Your task to perform on an android device: Go to Wikipedia Image 0: 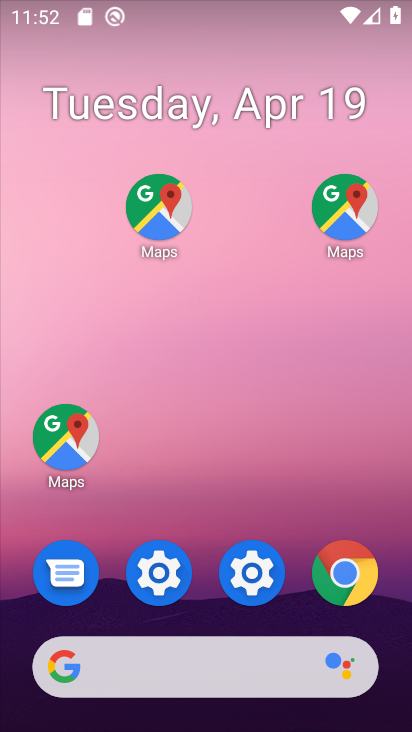
Step 0: drag from (342, 591) to (162, 133)
Your task to perform on an android device: Go to Wikipedia Image 1: 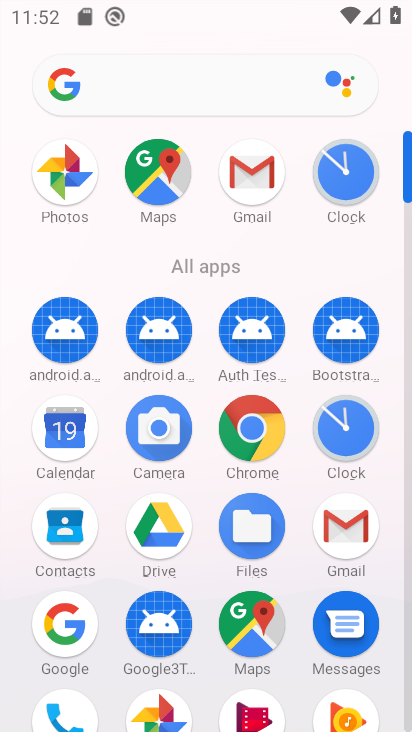
Step 1: click (252, 431)
Your task to perform on an android device: Go to Wikipedia Image 2: 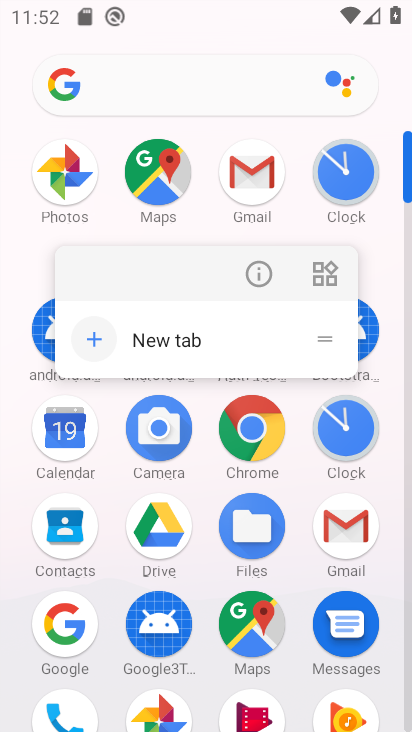
Step 2: click (256, 425)
Your task to perform on an android device: Go to Wikipedia Image 3: 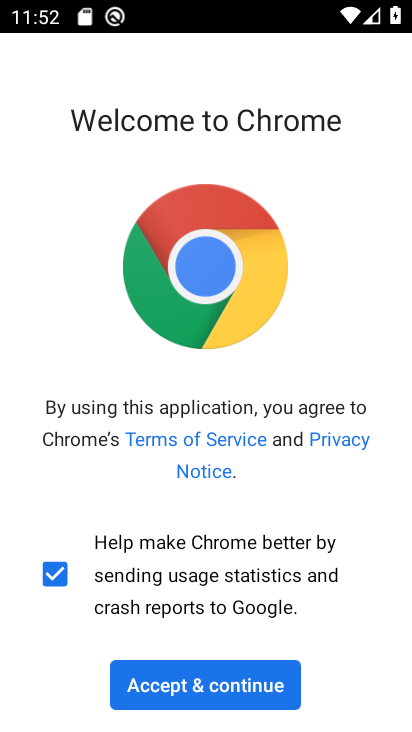
Step 3: click (197, 681)
Your task to perform on an android device: Go to Wikipedia Image 4: 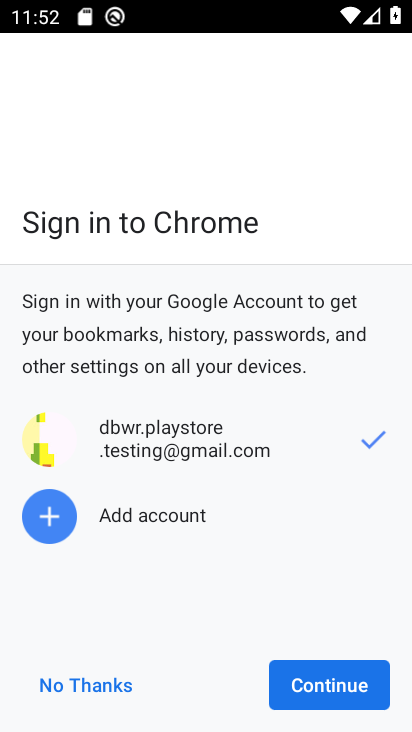
Step 4: click (342, 682)
Your task to perform on an android device: Go to Wikipedia Image 5: 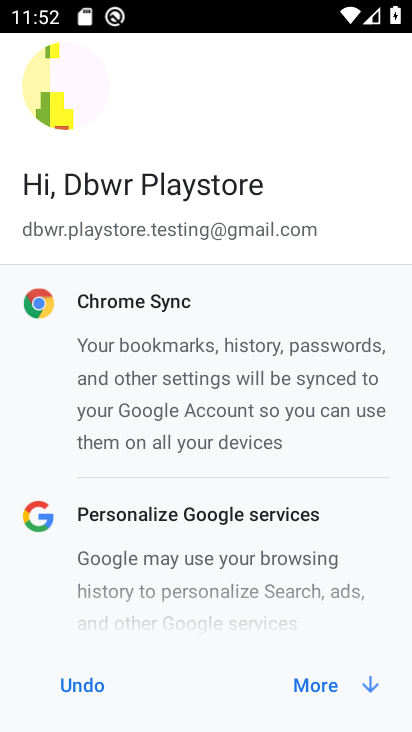
Step 5: click (342, 682)
Your task to perform on an android device: Go to Wikipedia Image 6: 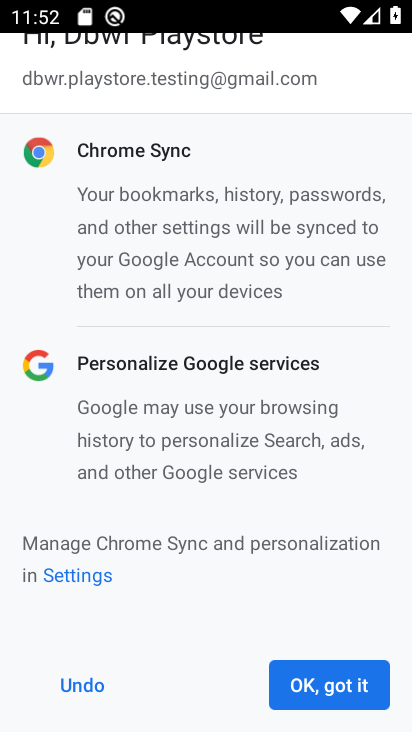
Step 6: click (342, 682)
Your task to perform on an android device: Go to Wikipedia Image 7: 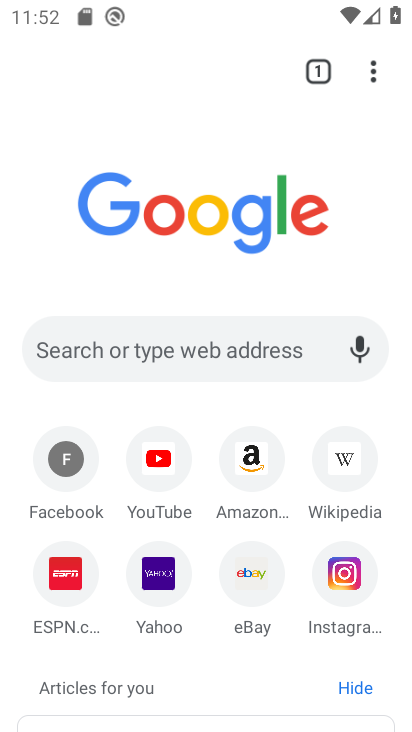
Step 7: click (340, 460)
Your task to perform on an android device: Go to Wikipedia Image 8: 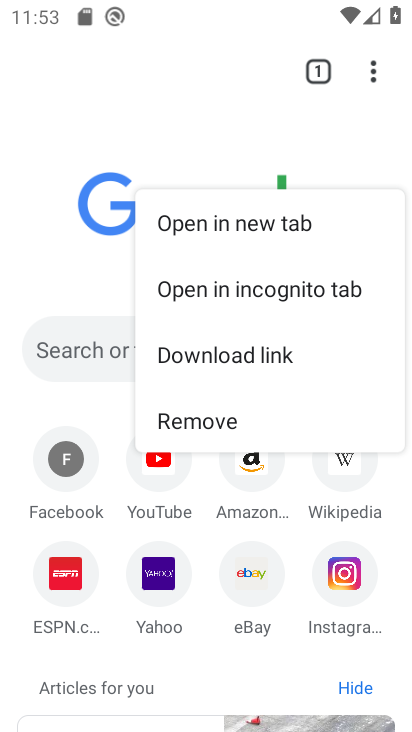
Step 8: click (336, 478)
Your task to perform on an android device: Go to Wikipedia Image 9: 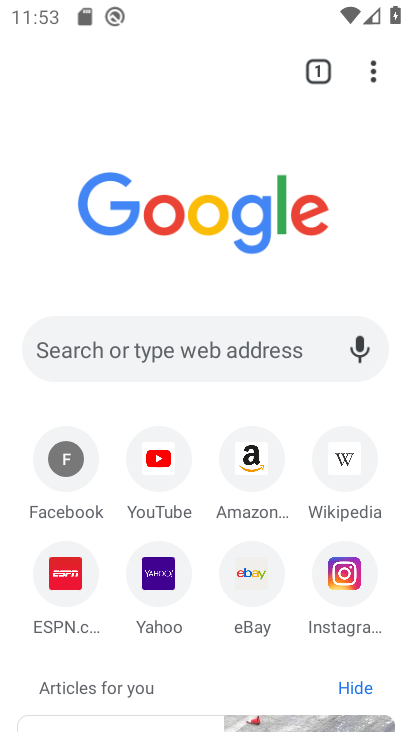
Step 9: click (336, 478)
Your task to perform on an android device: Go to Wikipedia Image 10: 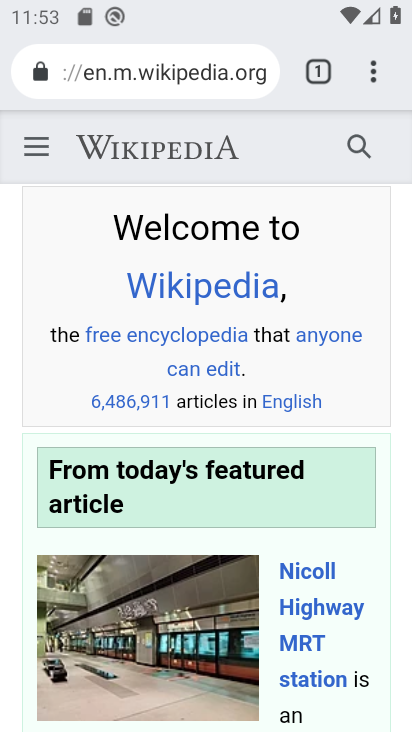
Step 10: task complete